Your task to perform on an android device: Turn on the flashlight Image 0: 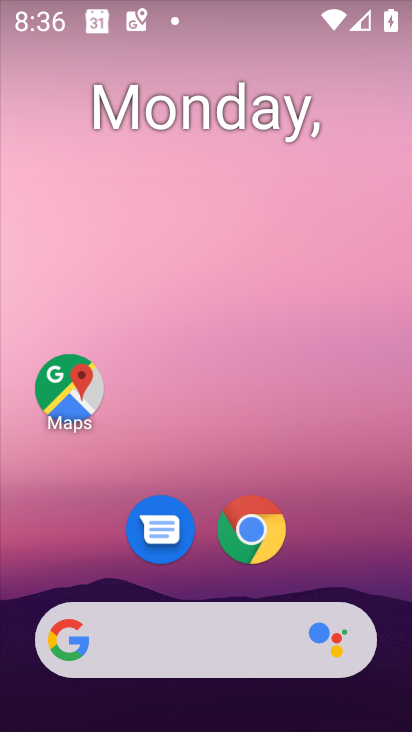
Step 0: drag from (15, 687) to (244, 132)
Your task to perform on an android device: Turn on the flashlight Image 1: 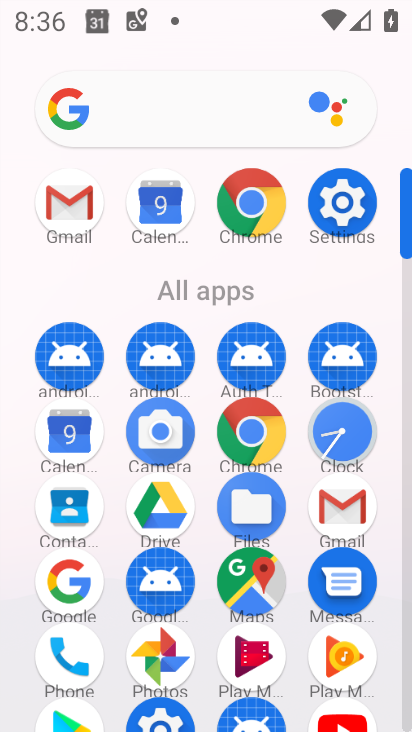
Step 1: click (342, 220)
Your task to perform on an android device: Turn on the flashlight Image 2: 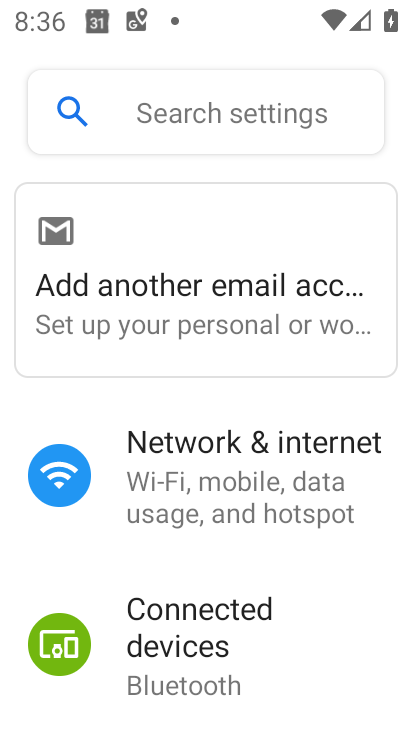
Step 2: task complete